Your task to perform on an android device: Open eBay Image 0: 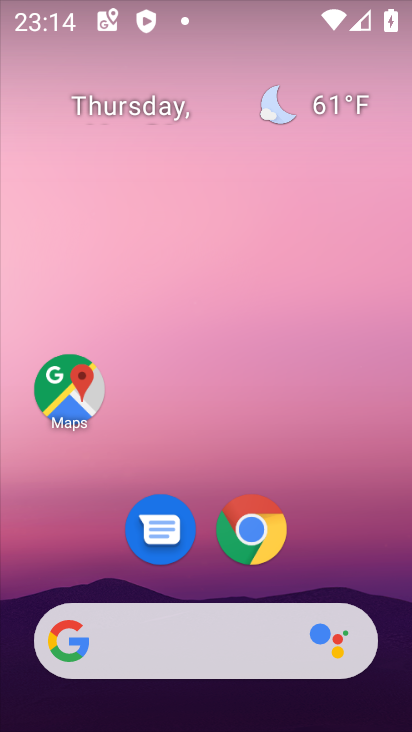
Step 0: drag from (347, 537) to (288, 54)
Your task to perform on an android device: Open eBay Image 1: 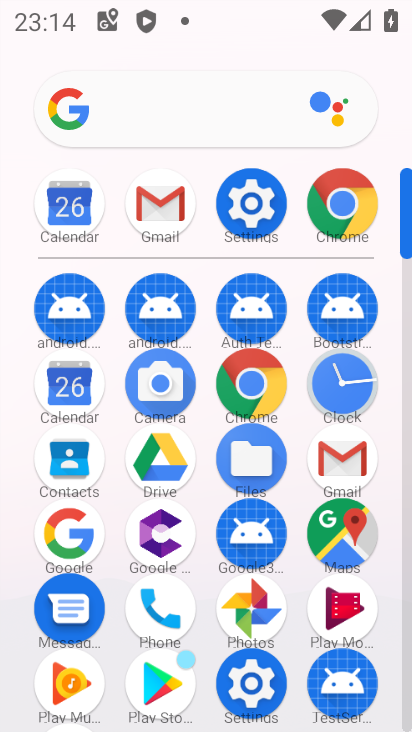
Step 1: click (217, 127)
Your task to perform on an android device: Open eBay Image 2: 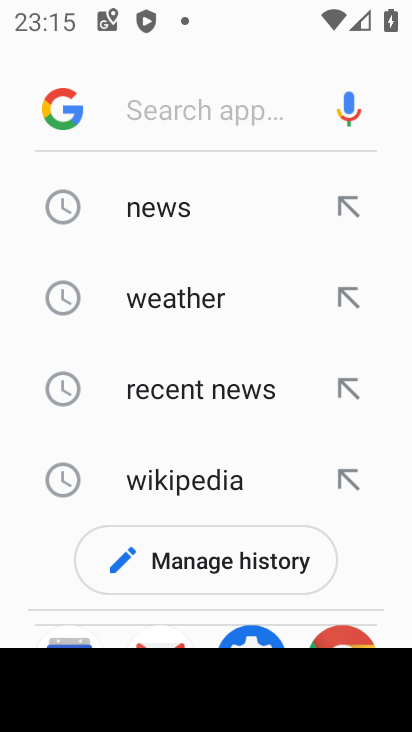
Step 2: type "ebay.com"
Your task to perform on an android device: Open eBay Image 3: 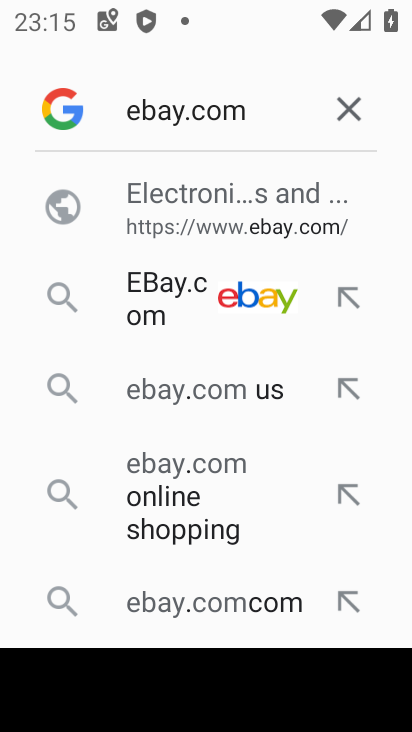
Step 3: click (180, 216)
Your task to perform on an android device: Open eBay Image 4: 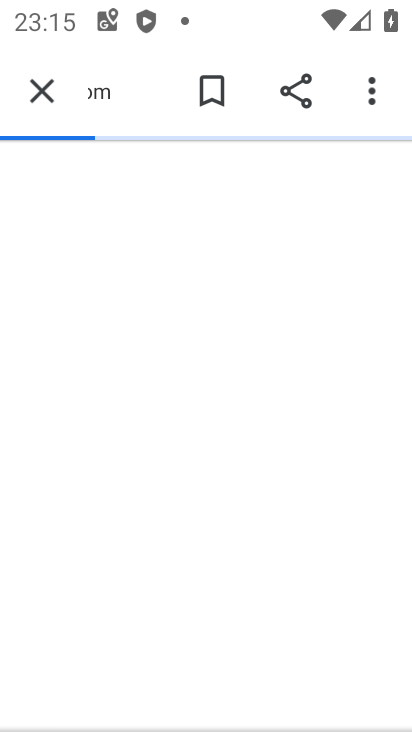
Step 4: task complete